Your task to perform on an android device: change the clock style Image 0: 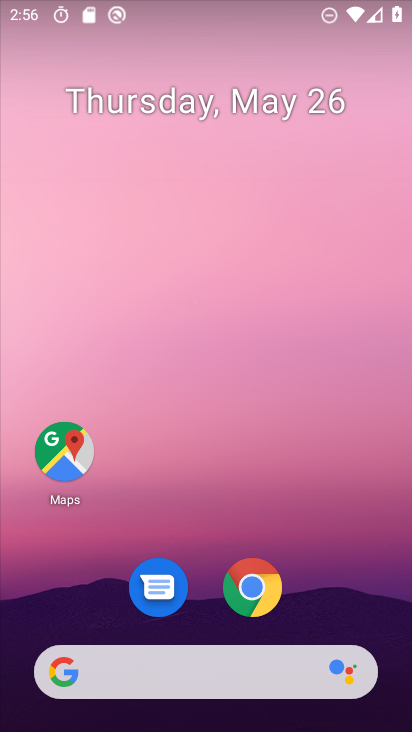
Step 0: drag from (331, 548) to (272, 127)
Your task to perform on an android device: change the clock style Image 1: 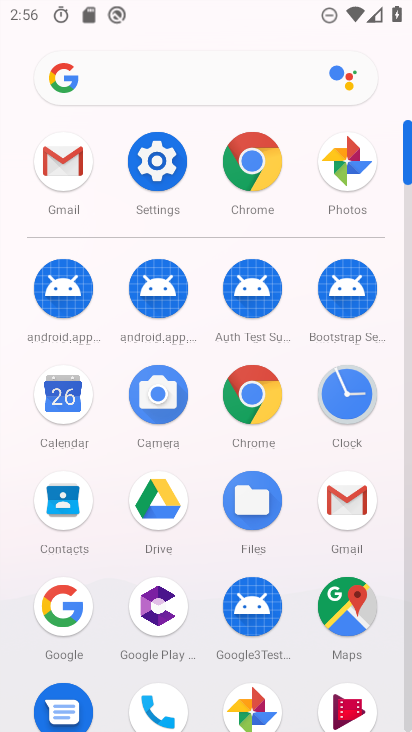
Step 1: click (351, 398)
Your task to perform on an android device: change the clock style Image 2: 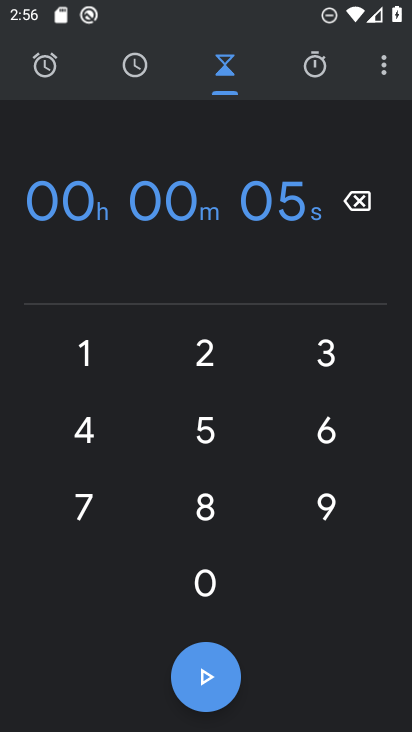
Step 2: click (385, 62)
Your task to perform on an android device: change the clock style Image 3: 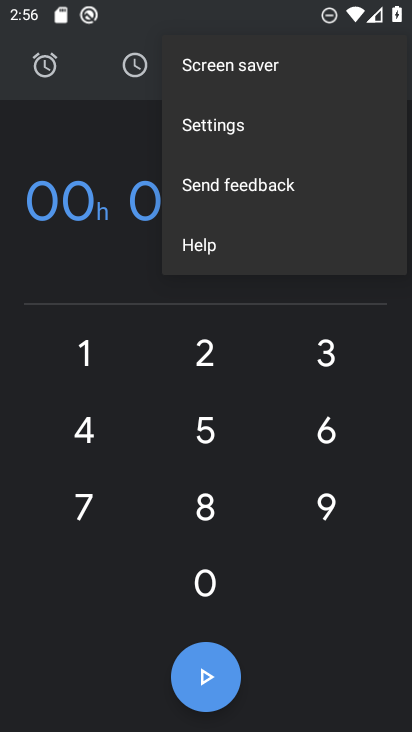
Step 3: click (224, 134)
Your task to perform on an android device: change the clock style Image 4: 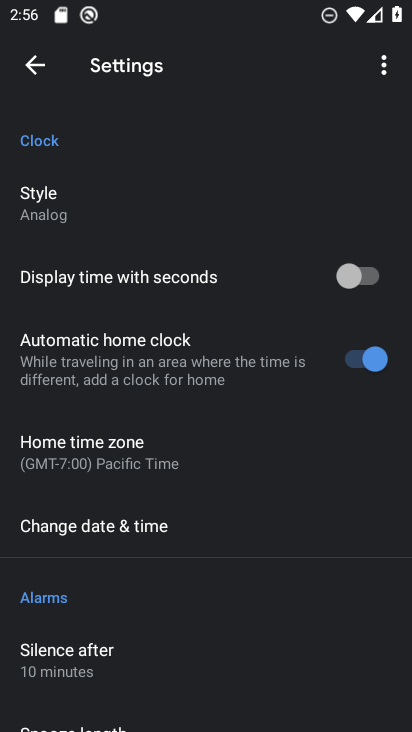
Step 4: click (73, 199)
Your task to perform on an android device: change the clock style Image 5: 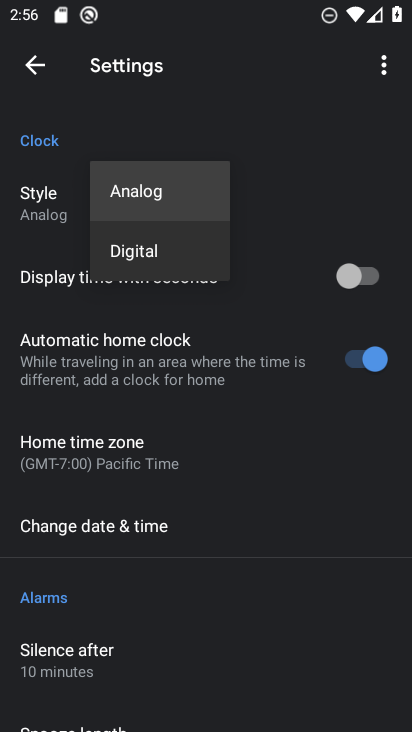
Step 5: task complete